Your task to perform on an android device: Go to Android settings Image 0: 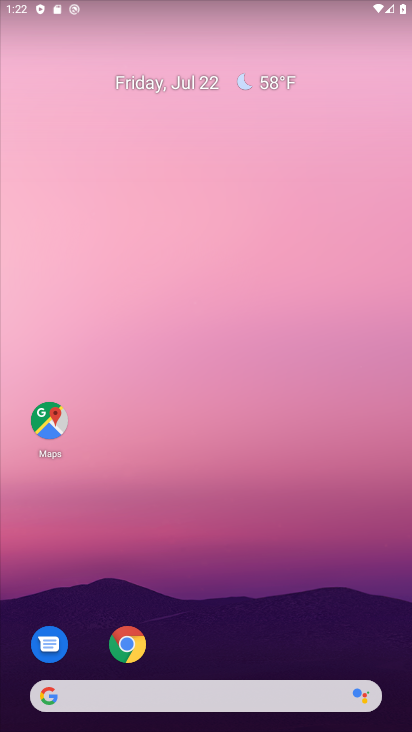
Step 0: click (259, 52)
Your task to perform on an android device: Go to Android settings Image 1: 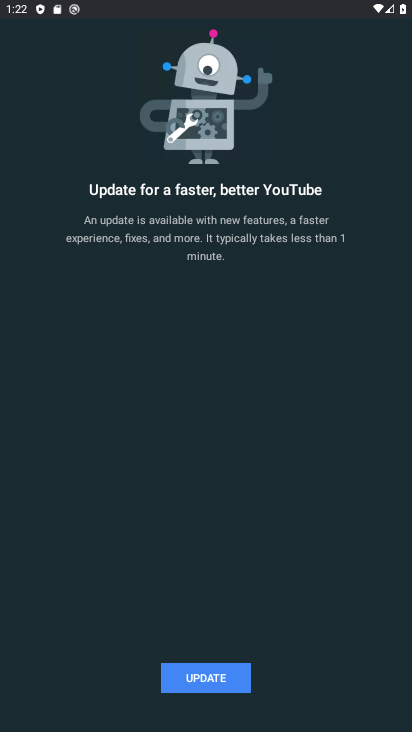
Step 1: press home button
Your task to perform on an android device: Go to Android settings Image 2: 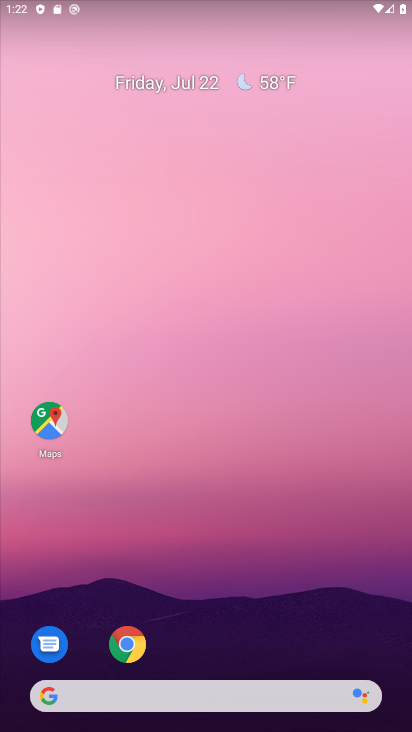
Step 2: drag from (164, 683) to (216, 83)
Your task to perform on an android device: Go to Android settings Image 3: 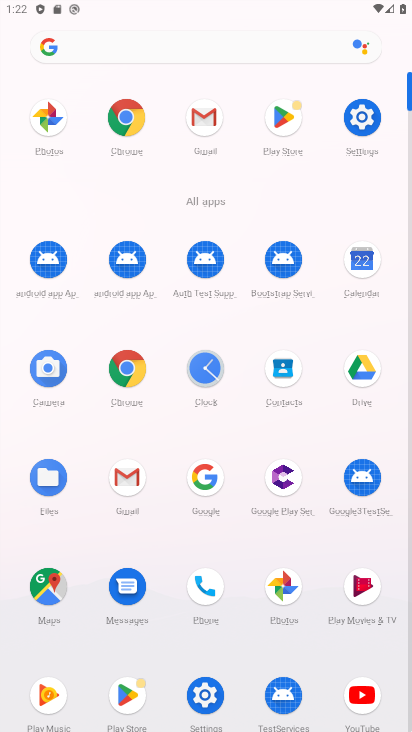
Step 3: click (366, 119)
Your task to perform on an android device: Go to Android settings Image 4: 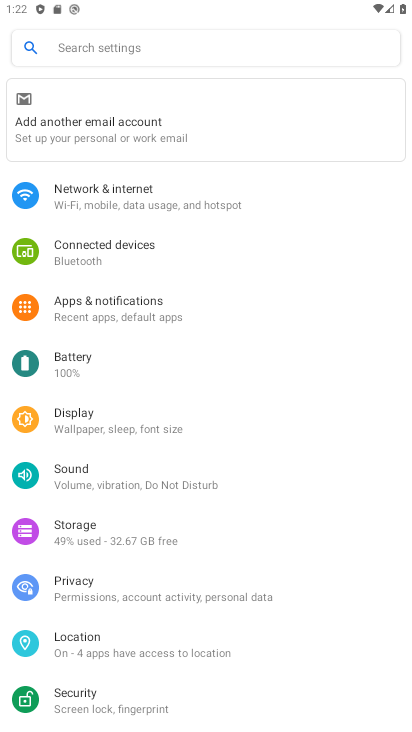
Step 4: task complete